Your task to perform on an android device: change notification settings in the gmail app Image 0: 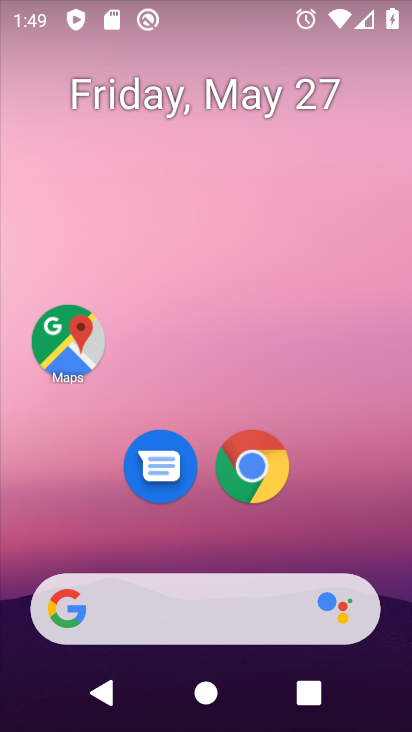
Step 0: drag from (332, 522) to (275, 67)
Your task to perform on an android device: change notification settings in the gmail app Image 1: 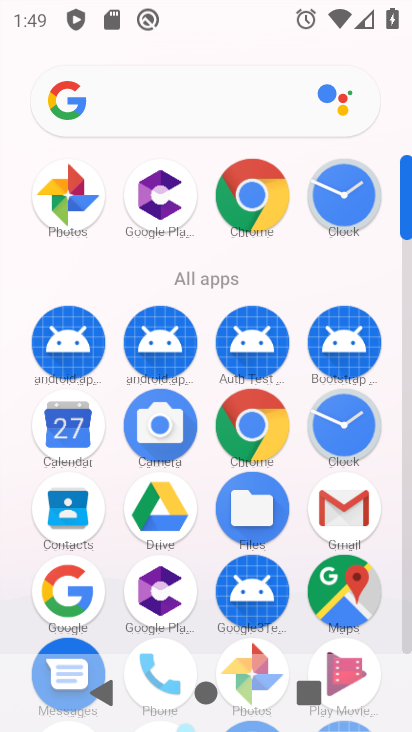
Step 1: click (339, 504)
Your task to perform on an android device: change notification settings in the gmail app Image 2: 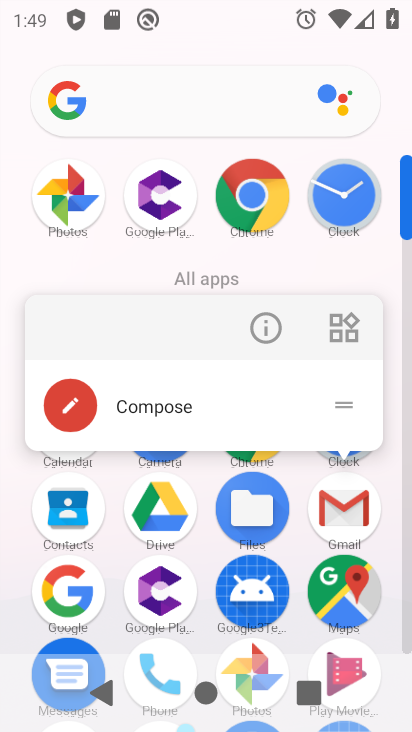
Step 2: click (267, 334)
Your task to perform on an android device: change notification settings in the gmail app Image 3: 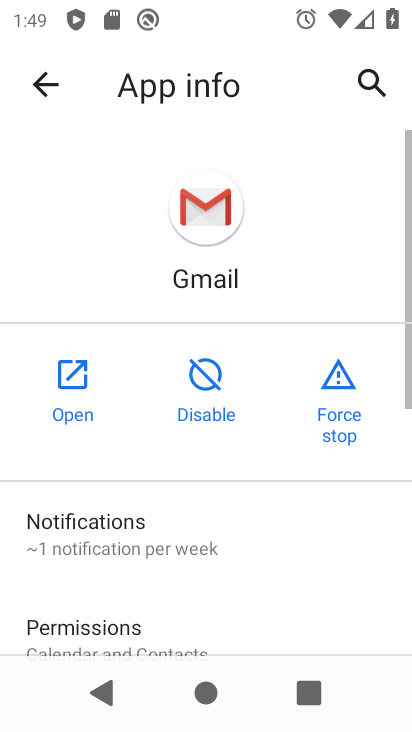
Step 3: click (171, 536)
Your task to perform on an android device: change notification settings in the gmail app Image 4: 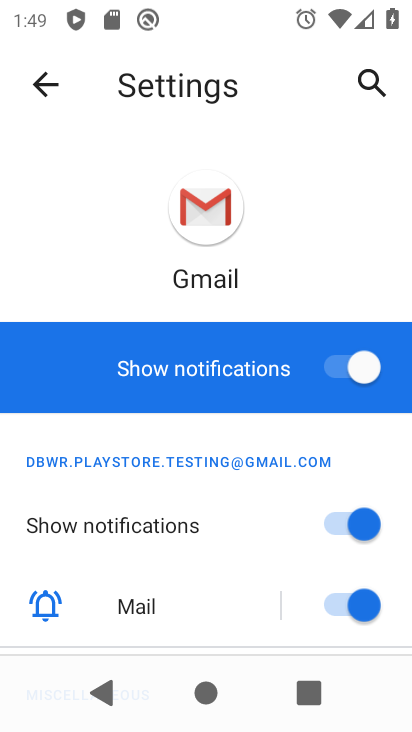
Step 4: click (339, 374)
Your task to perform on an android device: change notification settings in the gmail app Image 5: 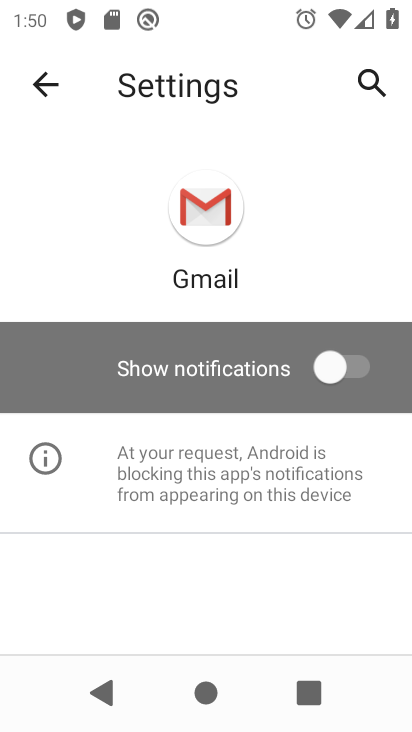
Step 5: task complete